Your task to perform on an android device: open app "McDonald's" Image 0: 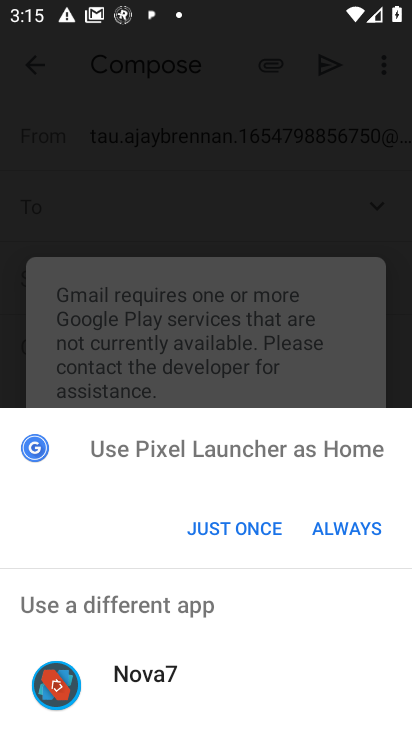
Step 0: press home button
Your task to perform on an android device: open app "McDonald's" Image 1: 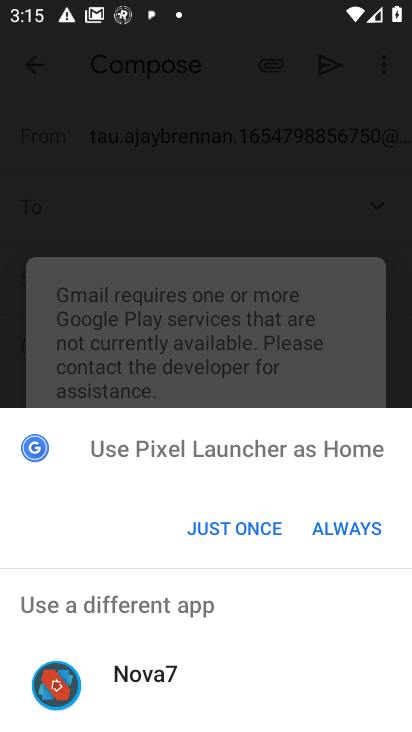
Step 1: press home button
Your task to perform on an android device: open app "McDonald's" Image 2: 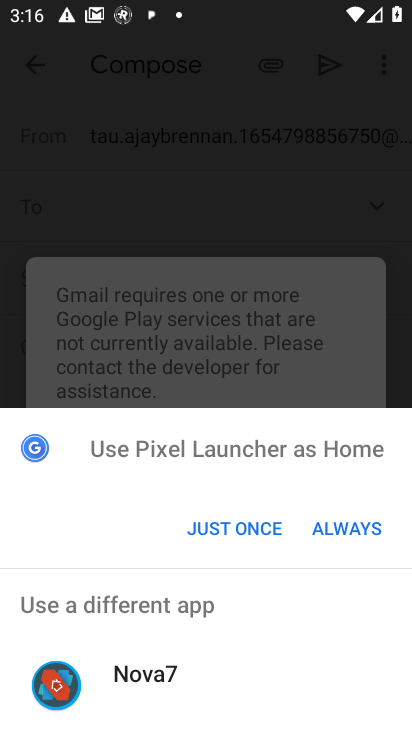
Step 2: press home button
Your task to perform on an android device: open app "McDonald's" Image 3: 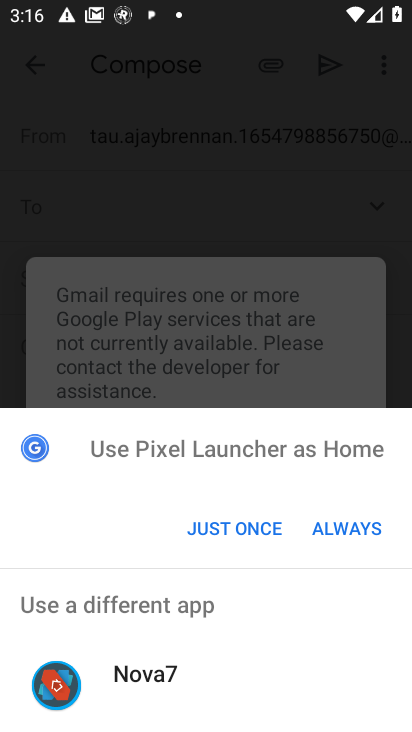
Step 3: press home button
Your task to perform on an android device: open app "McDonald's" Image 4: 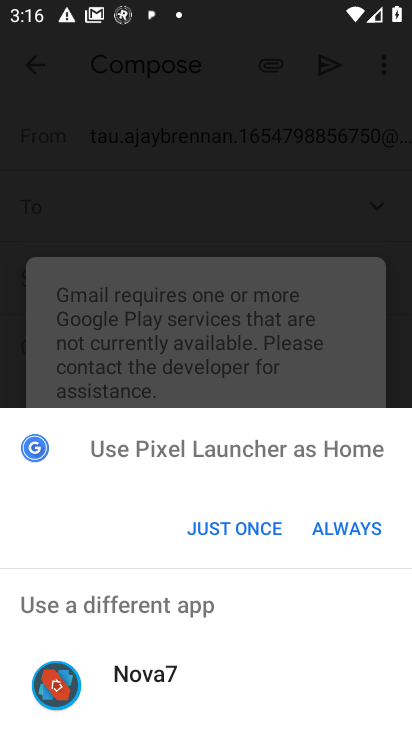
Step 4: click (329, 525)
Your task to perform on an android device: open app "McDonald's" Image 5: 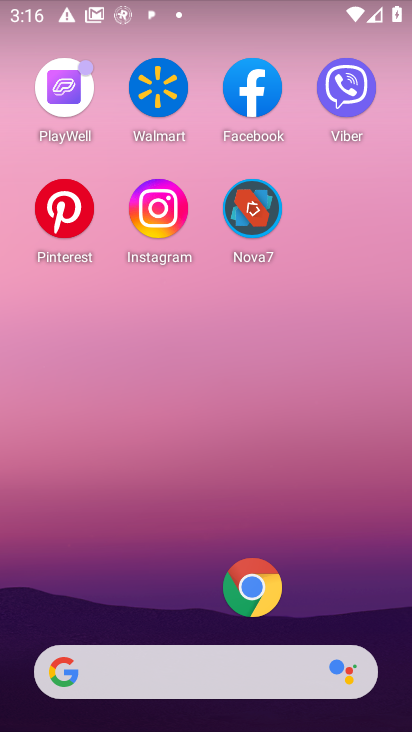
Step 5: drag from (177, 607) to (175, 253)
Your task to perform on an android device: open app "McDonald's" Image 6: 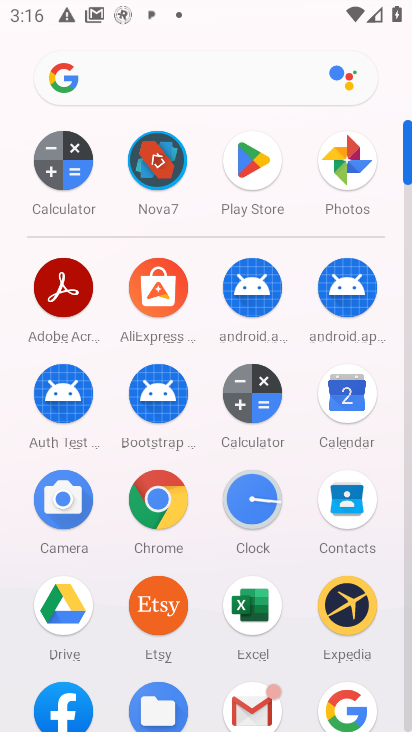
Step 6: click (261, 168)
Your task to perform on an android device: open app "McDonald's" Image 7: 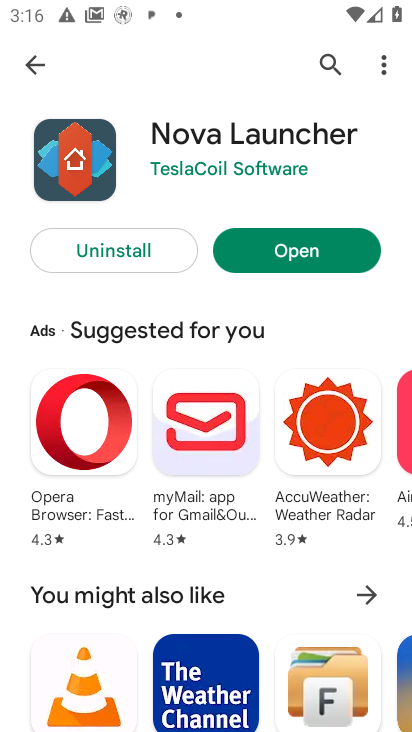
Step 7: click (342, 68)
Your task to perform on an android device: open app "McDonald's" Image 8: 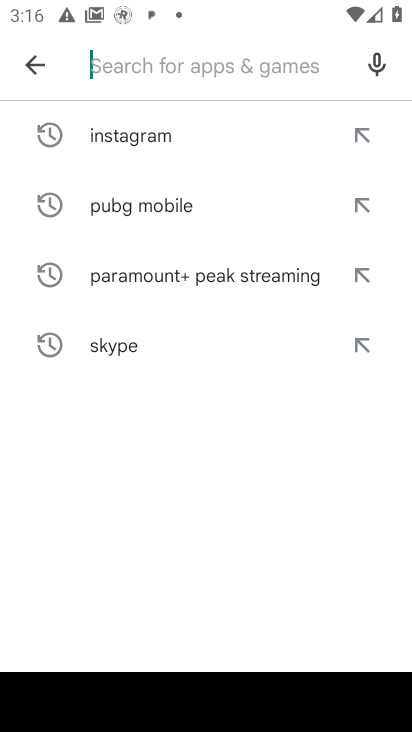
Step 8: type "McDonald's"
Your task to perform on an android device: open app "McDonald's" Image 9: 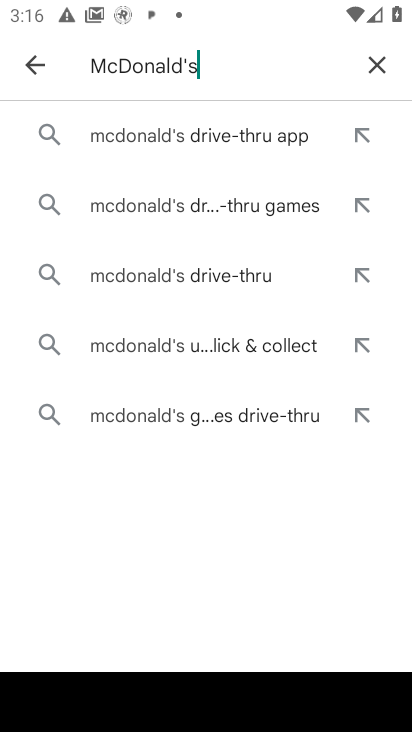
Step 9: type ""
Your task to perform on an android device: open app "McDonald's" Image 10: 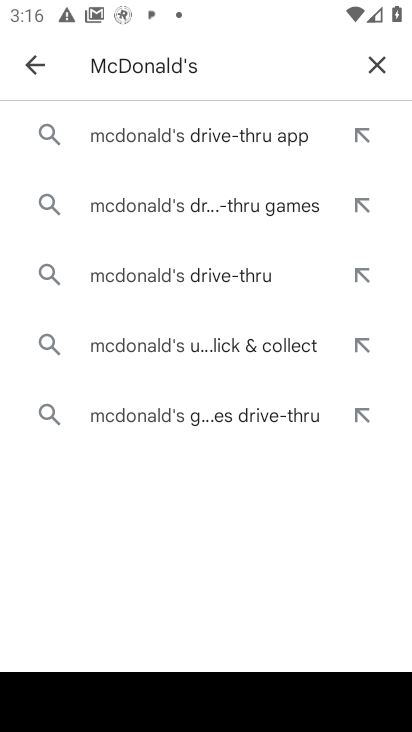
Step 10: click (204, 149)
Your task to perform on an android device: open app "McDonald's" Image 11: 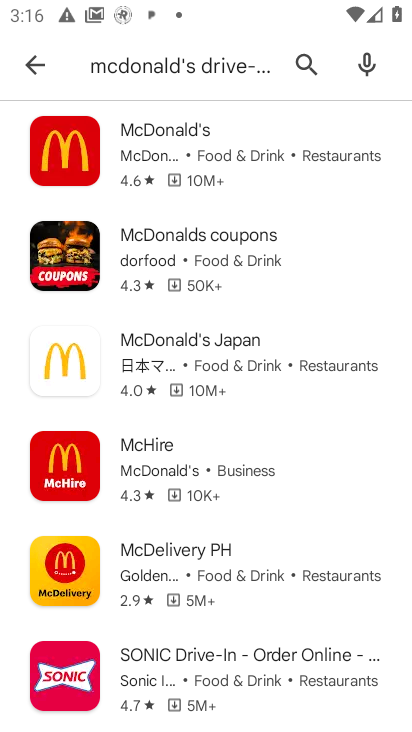
Step 11: click (204, 149)
Your task to perform on an android device: open app "McDonald's" Image 12: 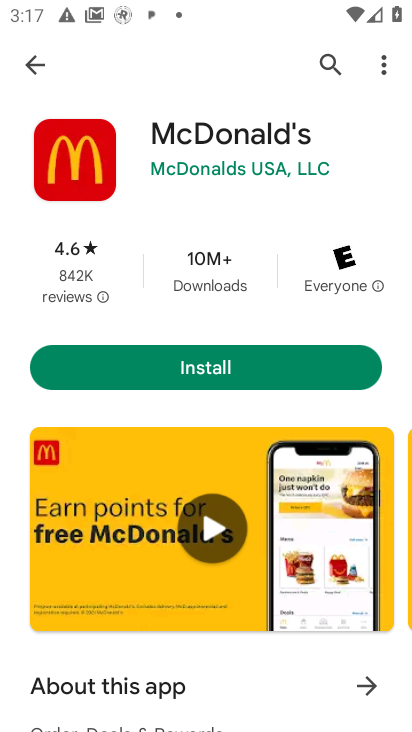
Step 12: task complete